Your task to perform on an android device: Open Google Maps Image 0: 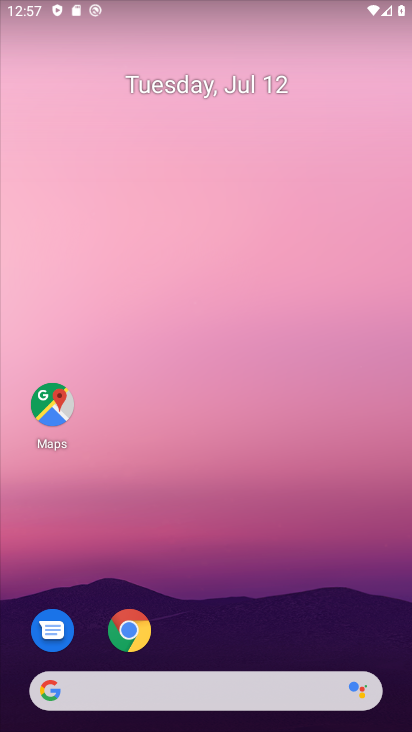
Step 0: click (53, 402)
Your task to perform on an android device: Open Google Maps Image 1: 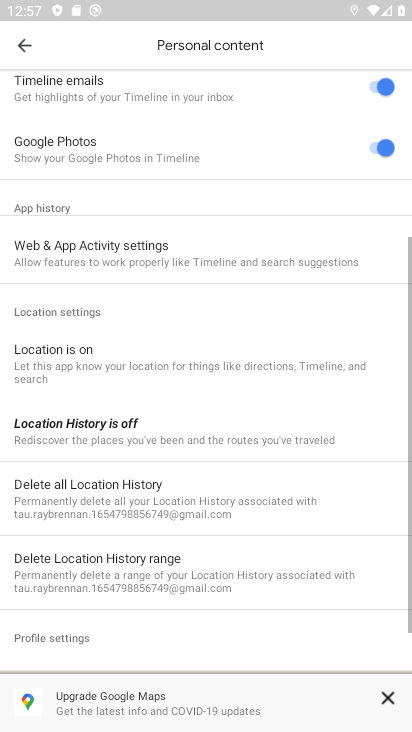
Step 1: task complete